Your task to perform on an android device: Open settings on Google Maps Image 0: 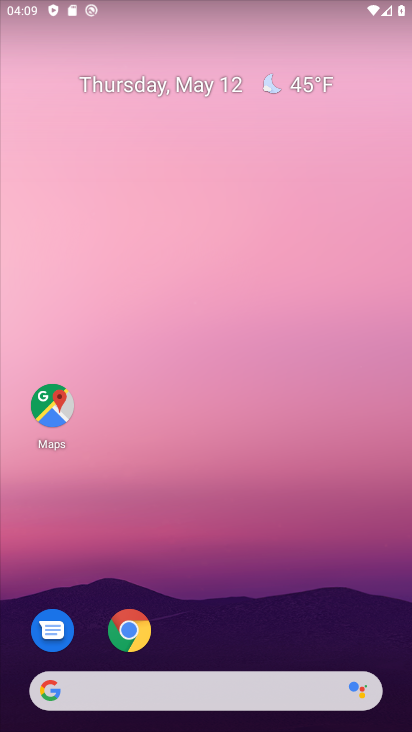
Step 0: click (56, 412)
Your task to perform on an android device: Open settings on Google Maps Image 1: 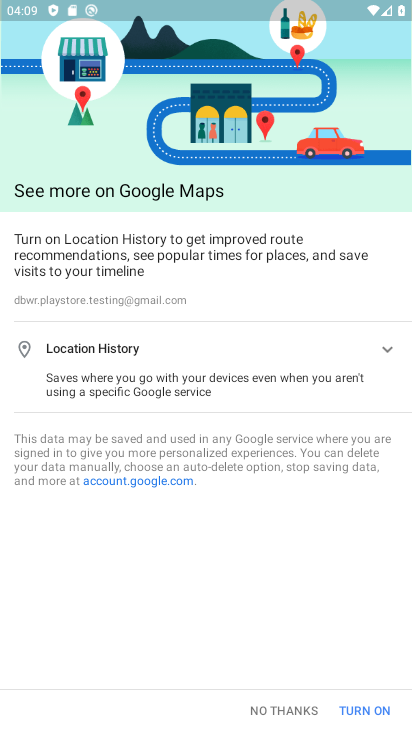
Step 1: click (286, 718)
Your task to perform on an android device: Open settings on Google Maps Image 2: 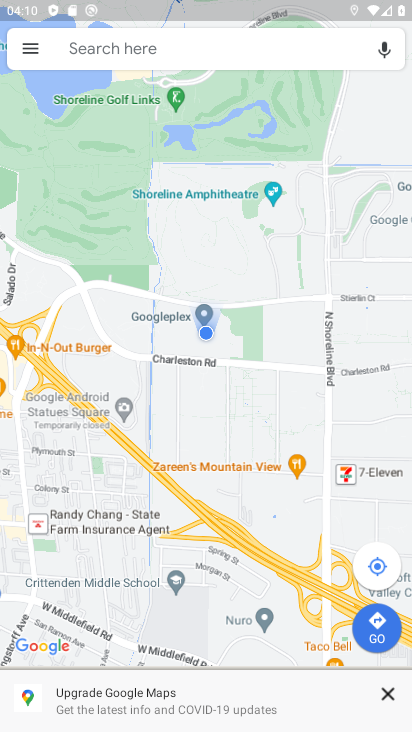
Step 2: click (25, 47)
Your task to perform on an android device: Open settings on Google Maps Image 3: 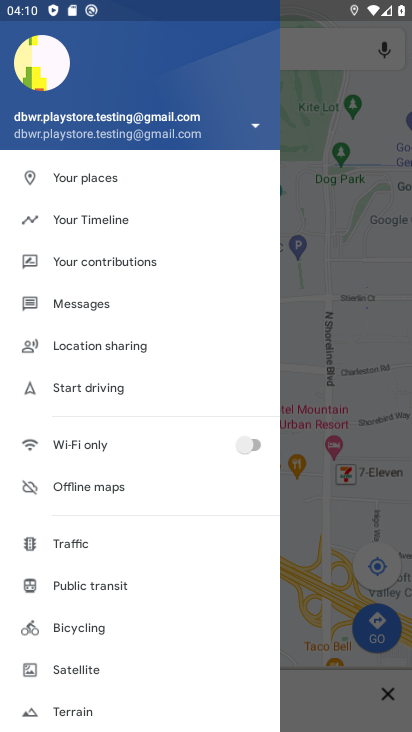
Step 3: drag from (109, 603) to (238, 138)
Your task to perform on an android device: Open settings on Google Maps Image 4: 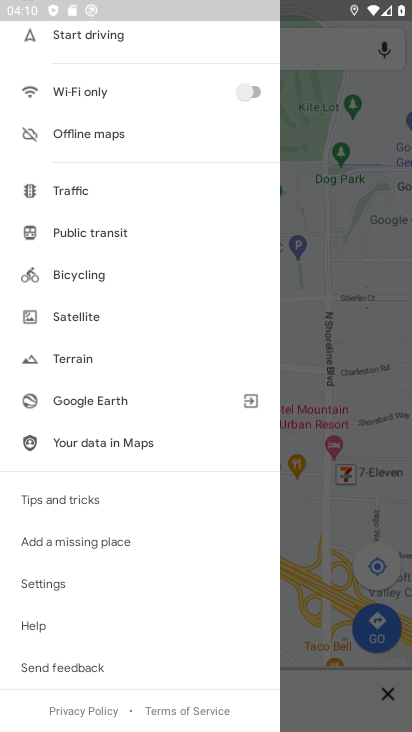
Step 4: click (58, 583)
Your task to perform on an android device: Open settings on Google Maps Image 5: 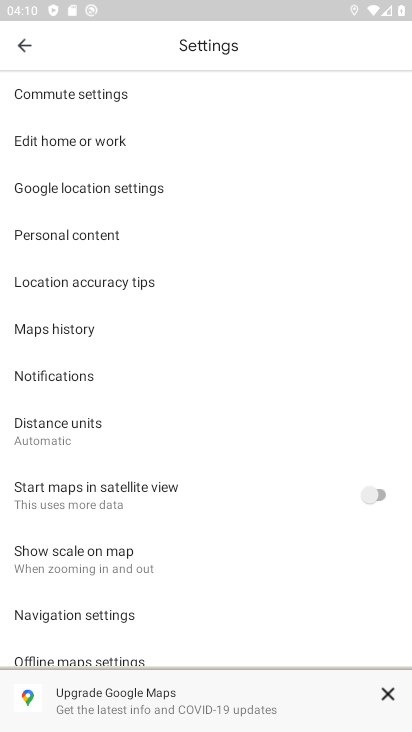
Step 5: task complete